Your task to perform on an android device: Show me popular videos on Youtube Image 0: 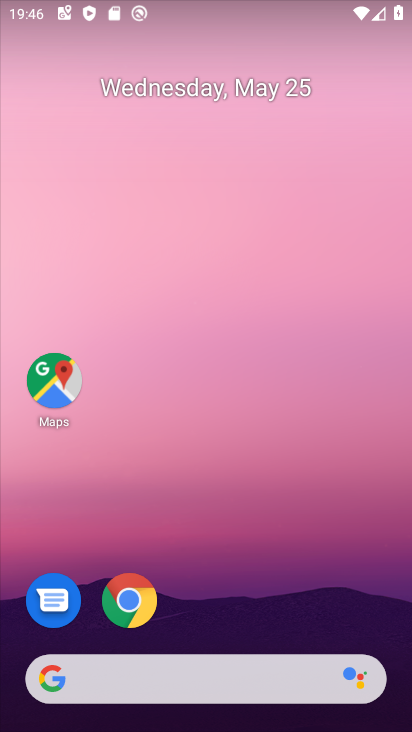
Step 0: drag from (372, 571) to (306, 149)
Your task to perform on an android device: Show me popular videos on Youtube Image 1: 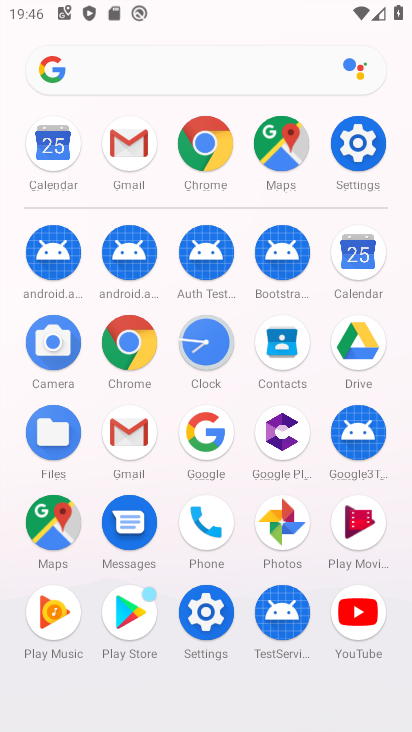
Step 1: click (368, 611)
Your task to perform on an android device: Show me popular videos on Youtube Image 2: 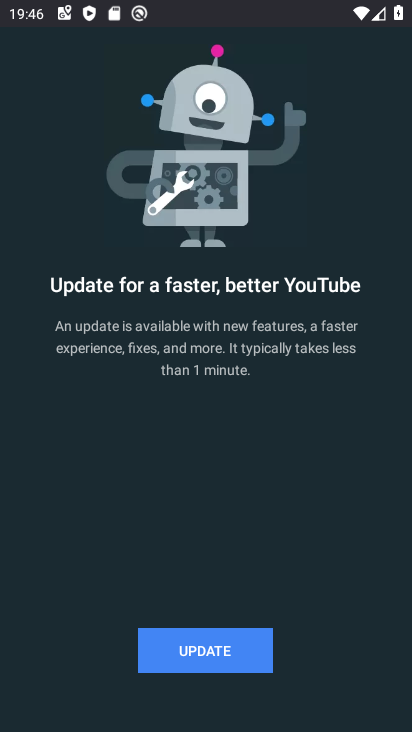
Step 2: click (241, 664)
Your task to perform on an android device: Show me popular videos on Youtube Image 3: 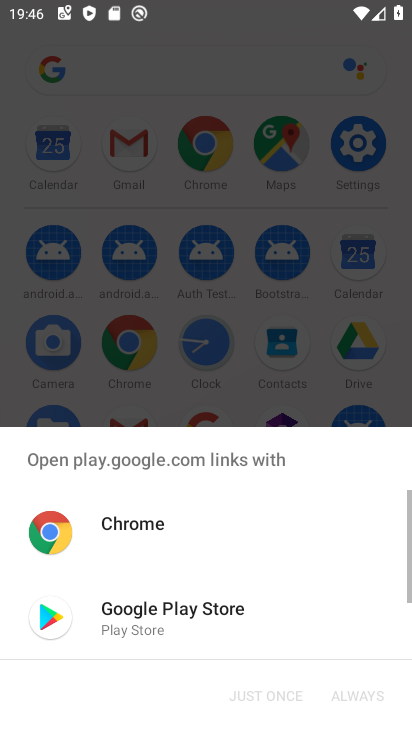
Step 3: click (194, 615)
Your task to perform on an android device: Show me popular videos on Youtube Image 4: 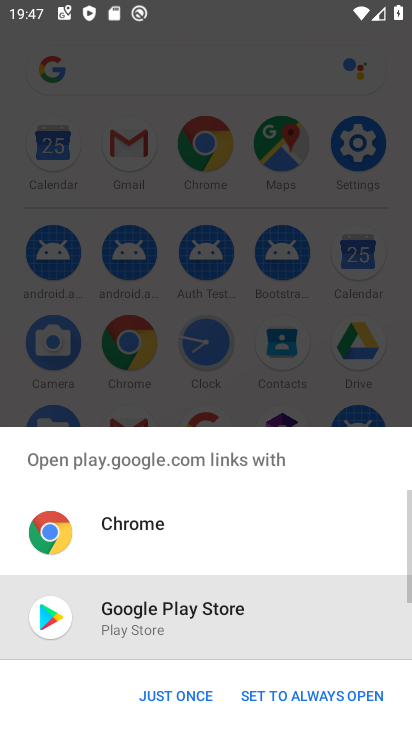
Step 4: drag from (196, 701) to (235, 701)
Your task to perform on an android device: Show me popular videos on Youtube Image 5: 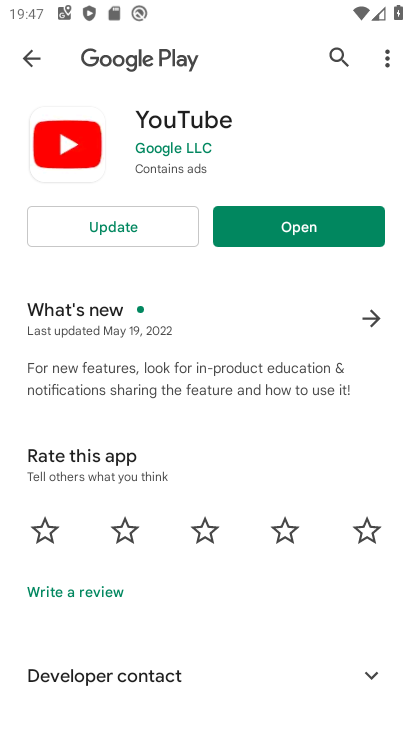
Step 5: click (144, 228)
Your task to perform on an android device: Show me popular videos on Youtube Image 6: 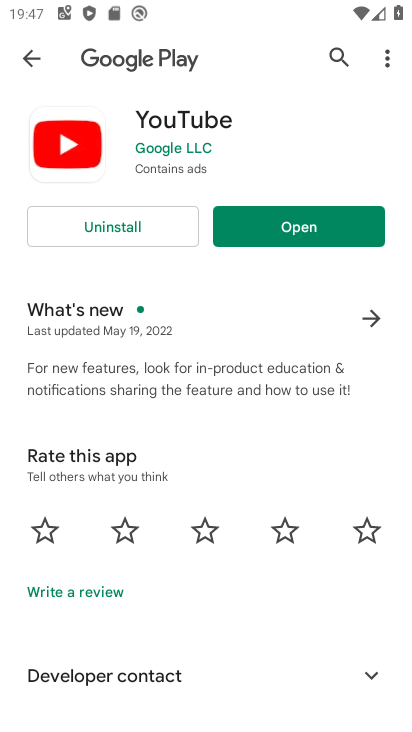
Step 6: click (311, 238)
Your task to perform on an android device: Show me popular videos on Youtube Image 7: 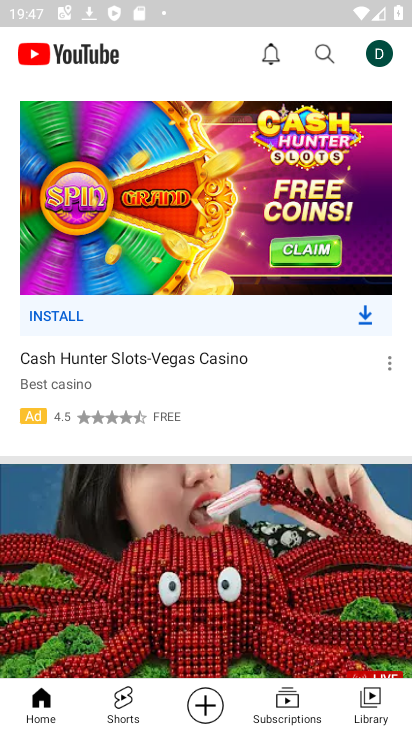
Step 7: task complete